Your task to perform on an android device: turn off wifi Image 0: 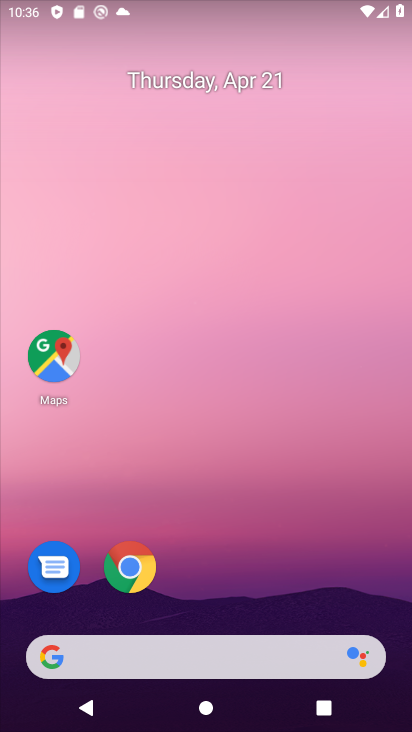
Step 0: click (250, 570)
Your task to perform on an android device: turn off wifi Image 1: 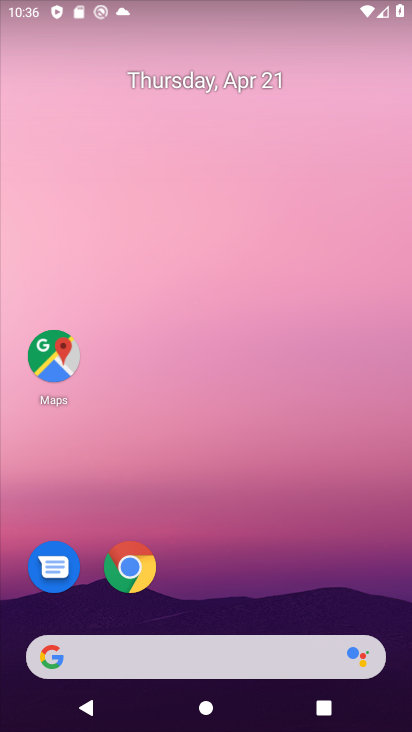
Step 1: drag from (253, 516) to (338, 62)
Your task to perform on an android device: turn off wifi Image 2: 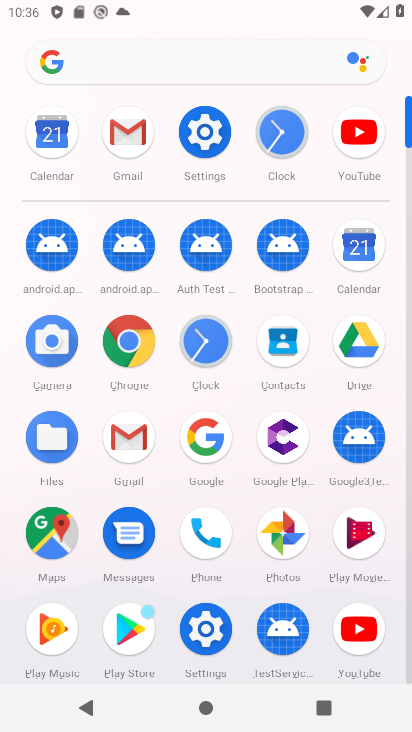
Step 2: click (213, 138)
Your task to perform on an android device: turn off wifi Image 3: 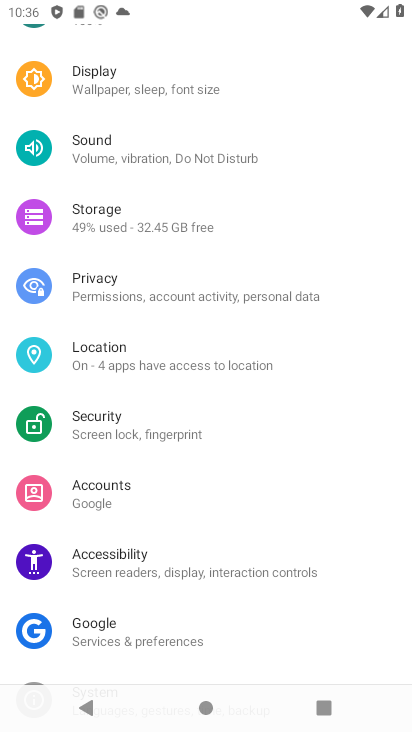
Step 3: drag from (208, 234) to (221, 630)
Your task to perform on an android device: turn off wifi Image 4: 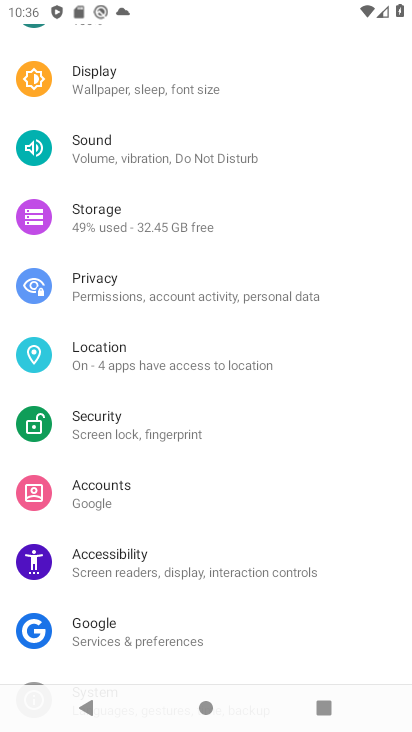
Step 4: drag from (160, 185) to (127, 727)
Your task to perform on an android device: turn off wifi Image 5: 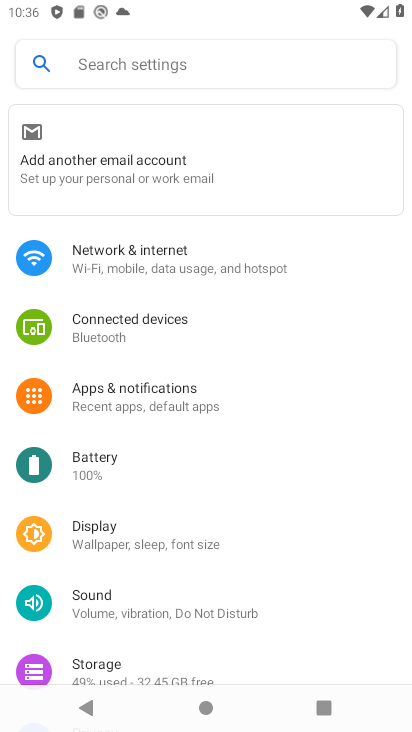
Step 5: click (105, 278)
Your task to perform on an android device: turn off wifi Image 6: 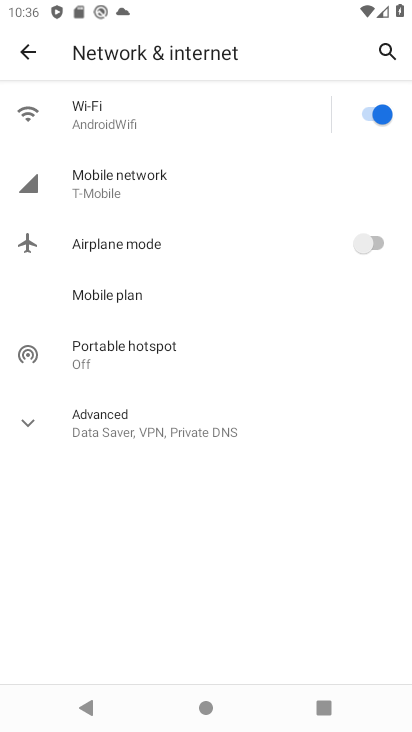
Step 6: click (361, 115)
Your task to perform on an android device: turn off wifi Image 7: 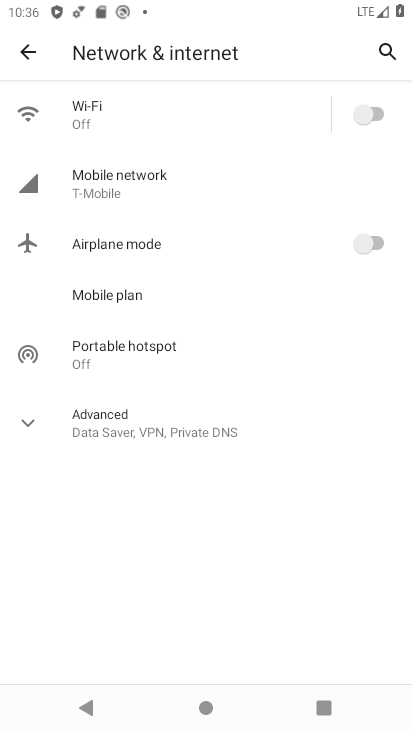
Step 7: task complete